Your task to perform on an android device: turn off smart reply in the gmail app Image 0: 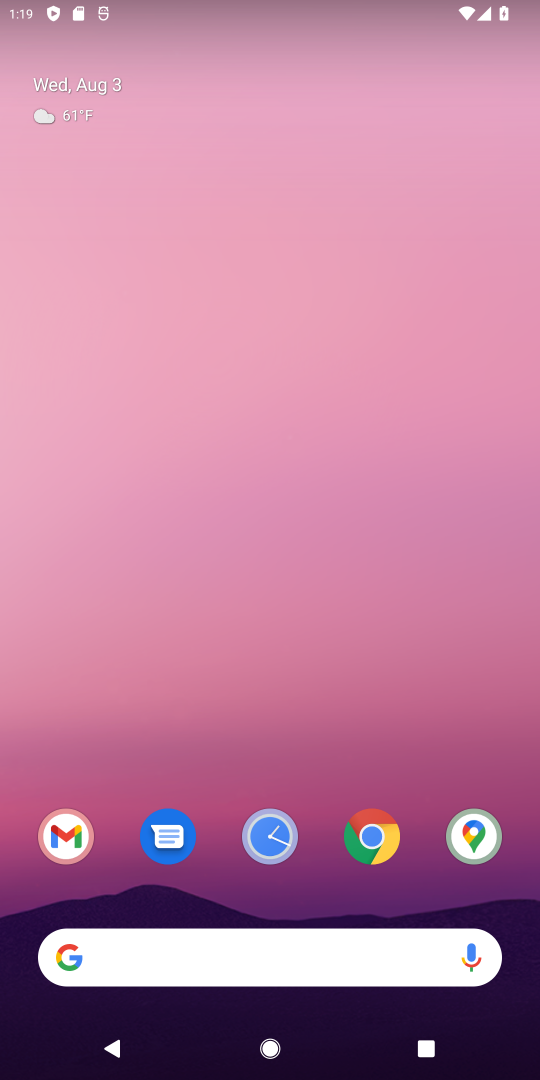
Step 0: drag from (231, 752) to (374, 95)
Your task to perform on an android device: turn off smart reply in the gmail app Image 1: 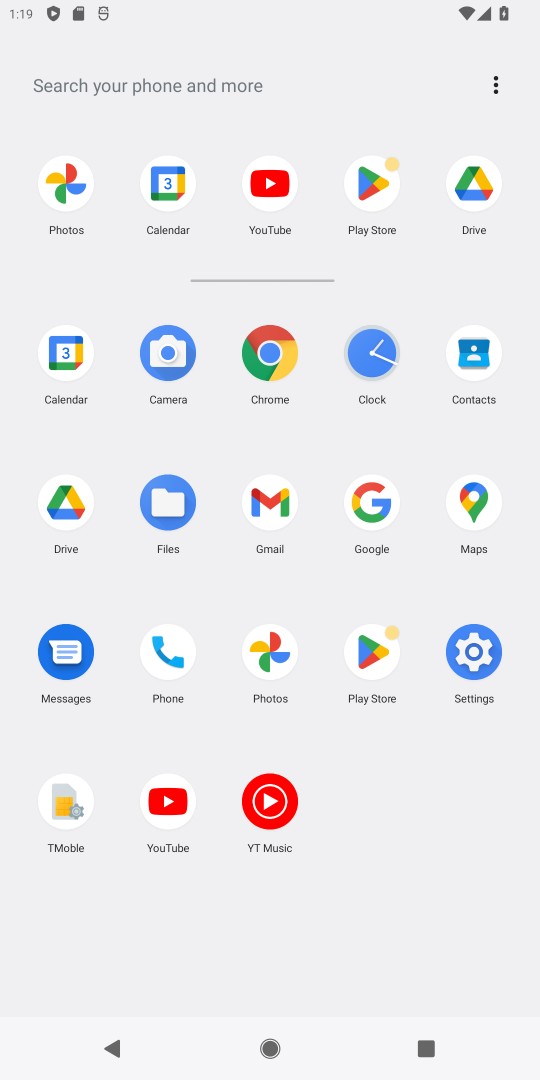
Step 1: click (272, 514)
Your task to perform on an android device: turn off smart reply in the gmail app Image 2: 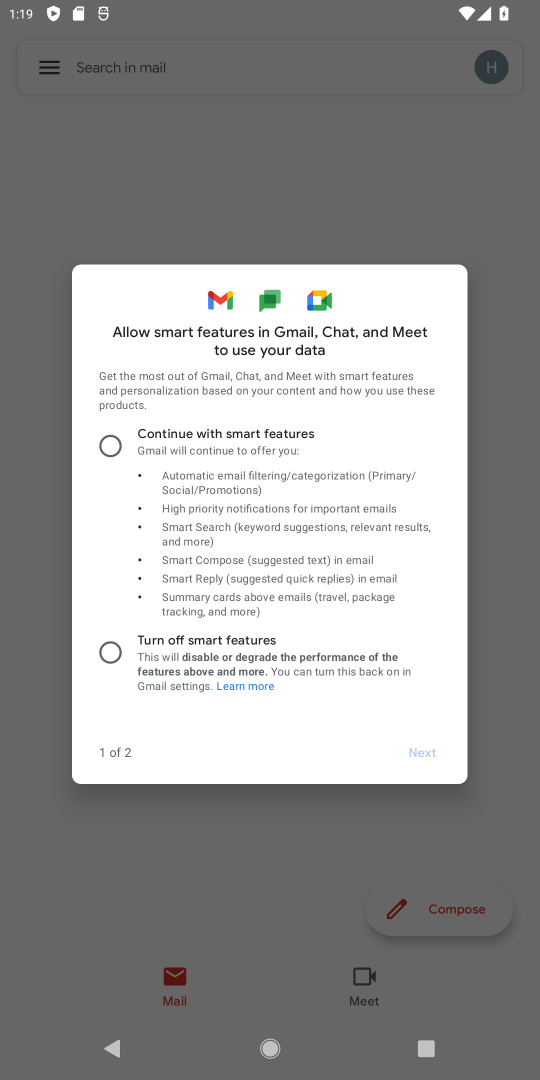
Step 2: drag from (311, 636) to (311, 289)
Your task to perform on an android device: turn off smart reply in the gmail app Image 3: 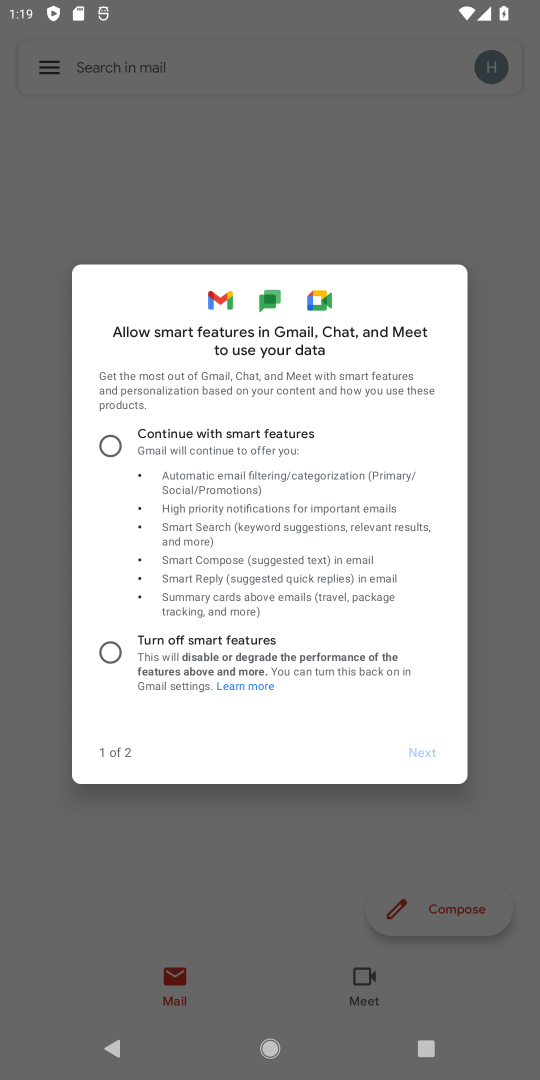
Step 3: click (456, 737)
Your task to perform on an android device: turn off smart reply in the gmail app Image 4: 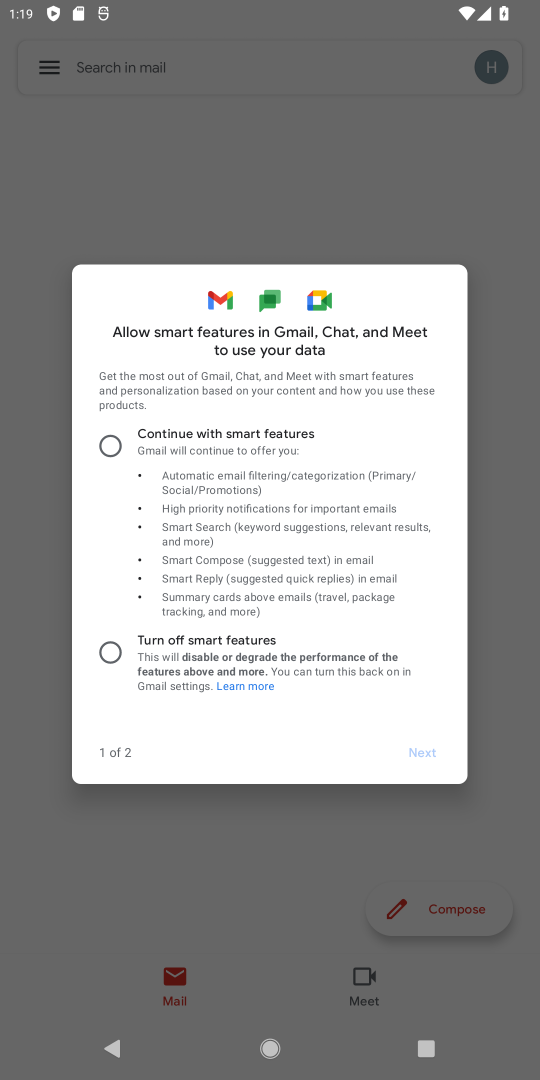
Step 4: drag from (307, 680) to (303, 328)
Your task to perform on an android device: turn off smart reply in the gmail app Image 5: 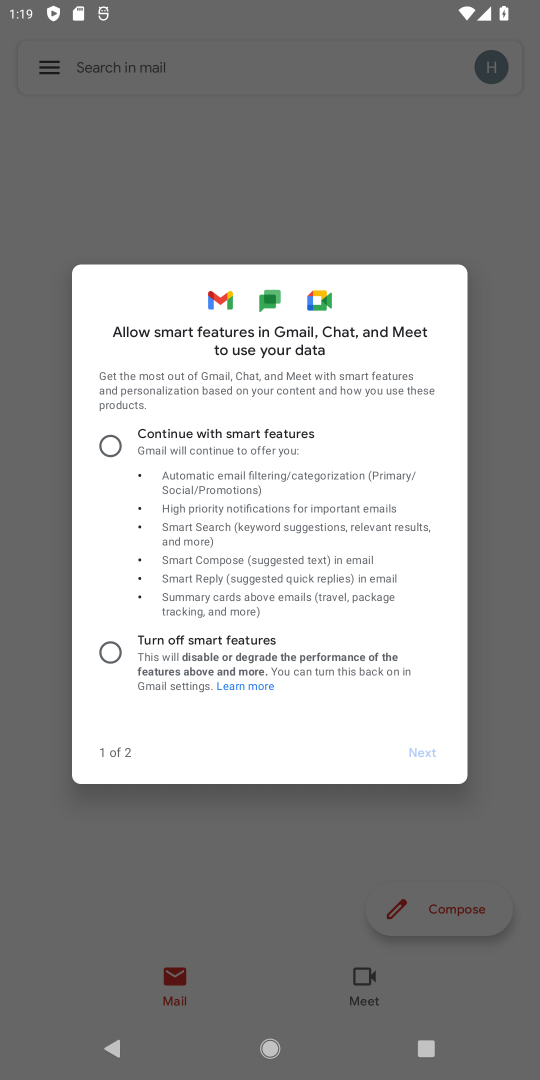
Step 5: drag from (176, 678) to (258, 471)
Your task to perform on an android device: turn off smart reply in the gmail app Image 6: 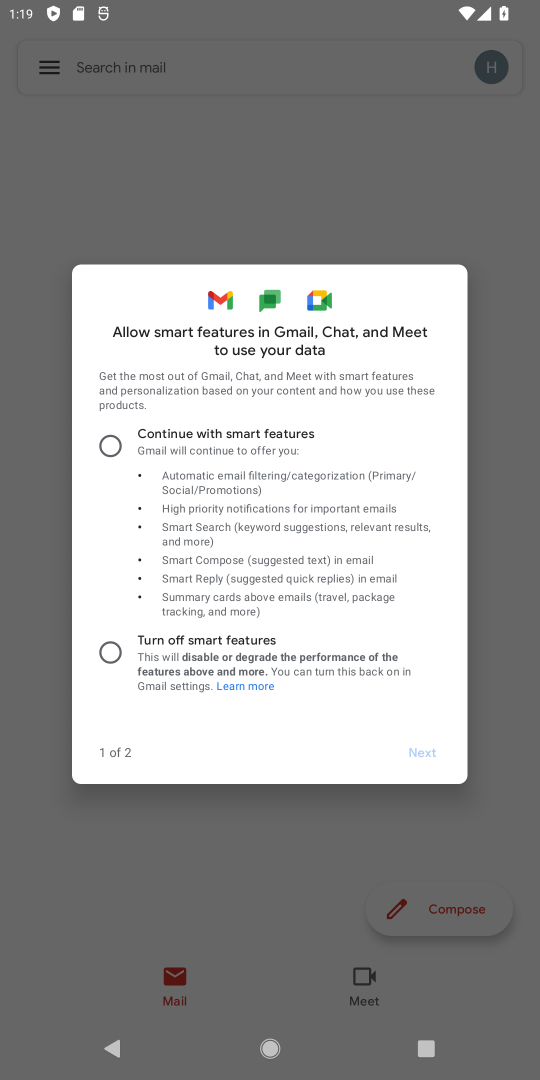
Step 6: click (145, 436)
Your task to perform on an android device: turn off smart reply in the gmail app Image 7: 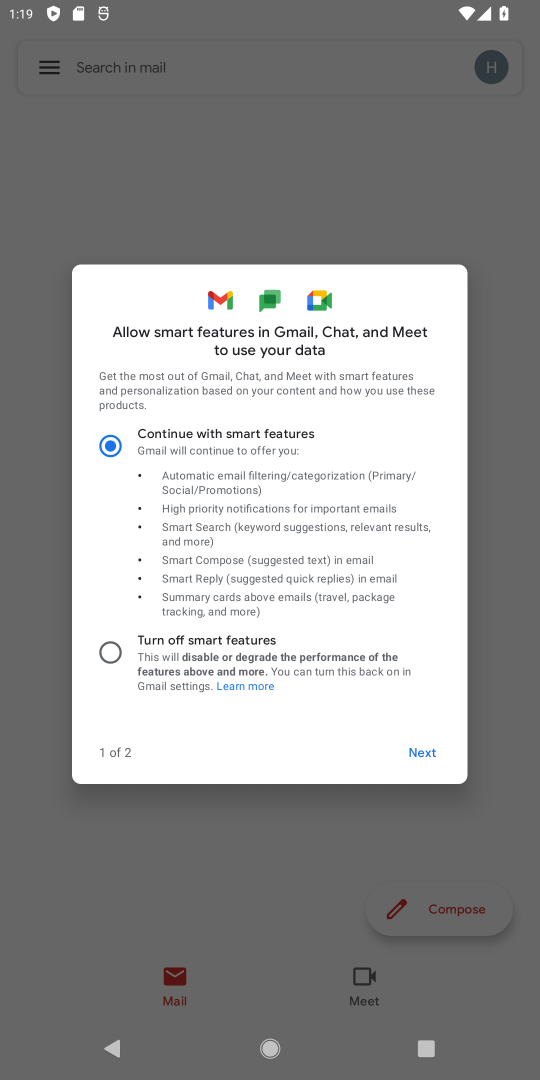
Step 7: click (425, 750)
Your task to perform on an android device: turn off smart reply in the gmail app Image 8: 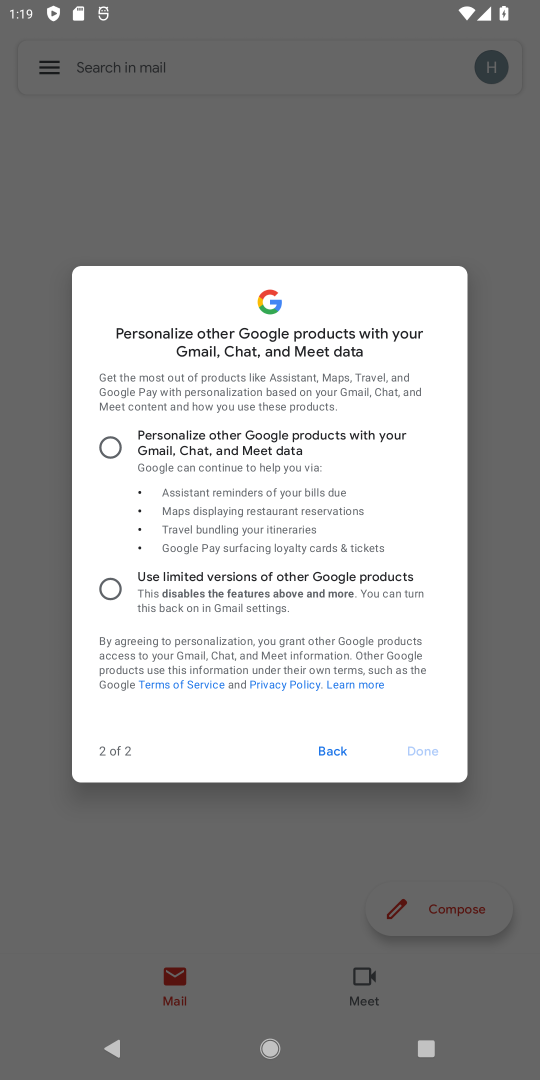
Step 8: click (331, 749)
Your task to perform on an android device: turn off smart reply in the gmail app Image 9: 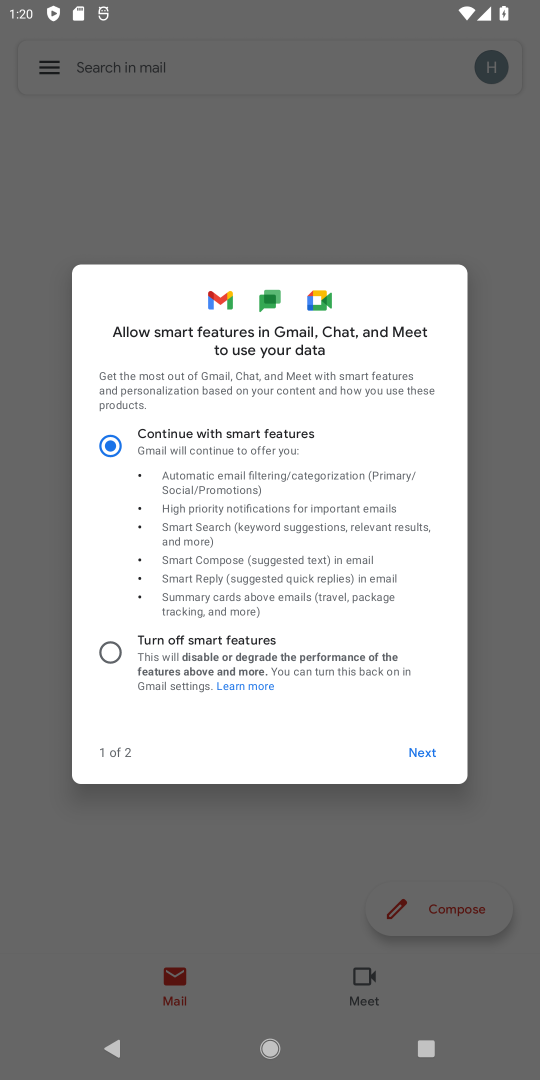
Step 9: click (405, 753)
Your task to perform on an android device: turn off smart reply in the gmail app Image 10: 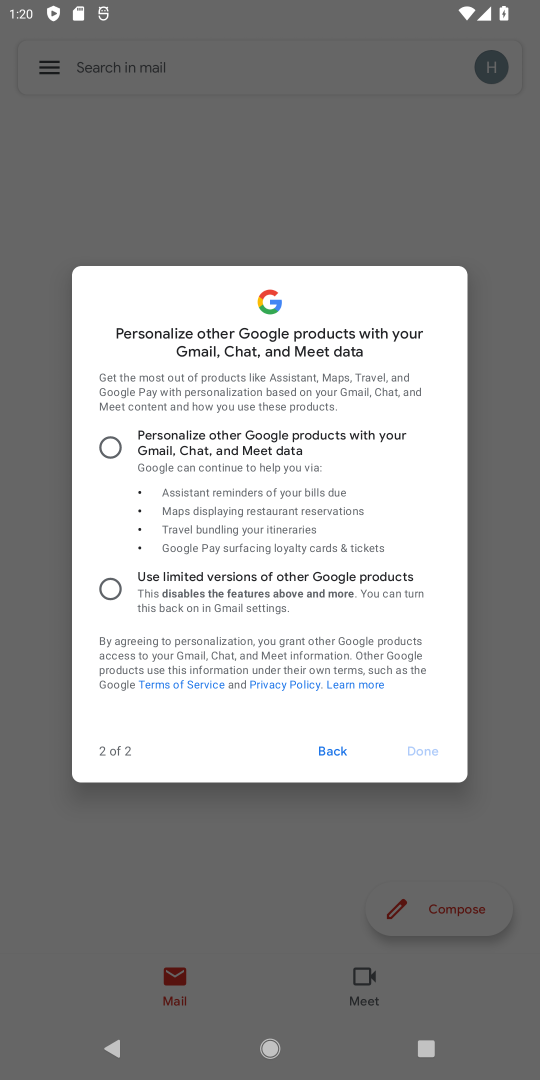
Step 10: click (127, 438)
Your task to perform on an android device: turn off smart reply in the gmail app Image 11: 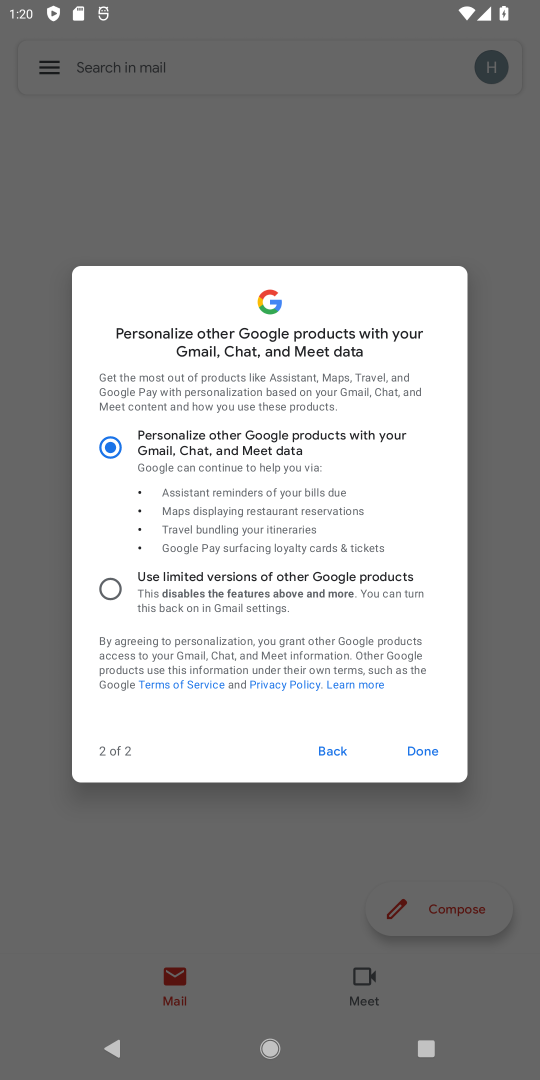
Step 11: click (423, 751)
Your task to perform on an android device: turn off smart reply in the gmail app Image 12: 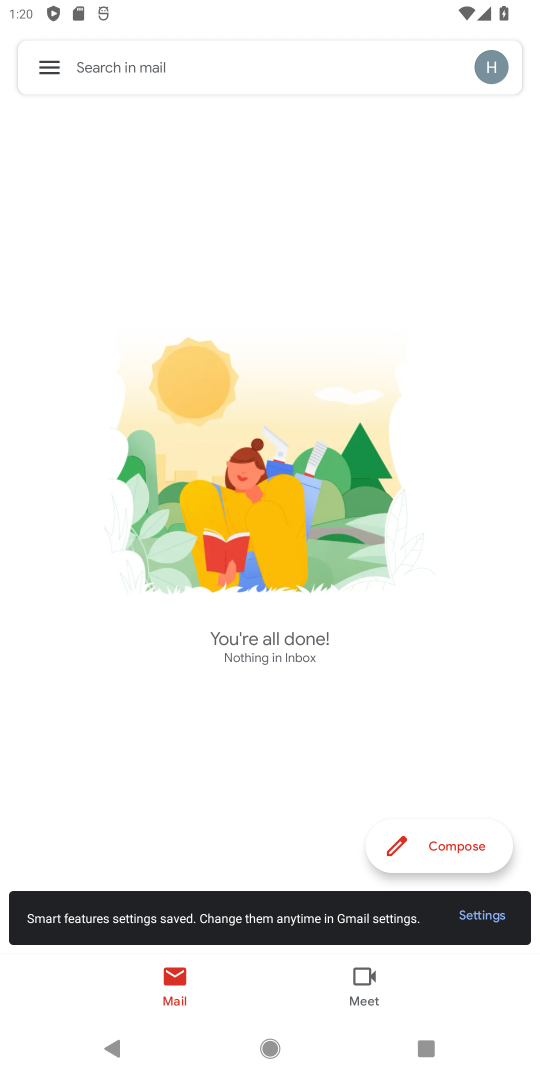
Step 12: drag from (333, 761) to (359, 512)
Your task to perform on an android device: turn off smart reply in the gmail app Image 13: 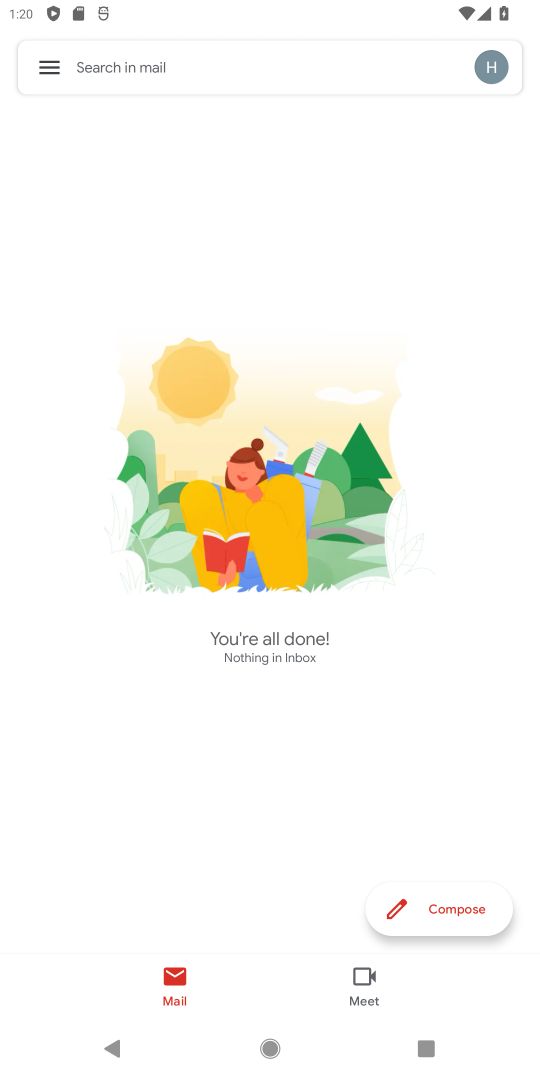
Step 13: click (55, 67)
Your task to perform on an android device: turn off smart reply in the gmail app Image 14: 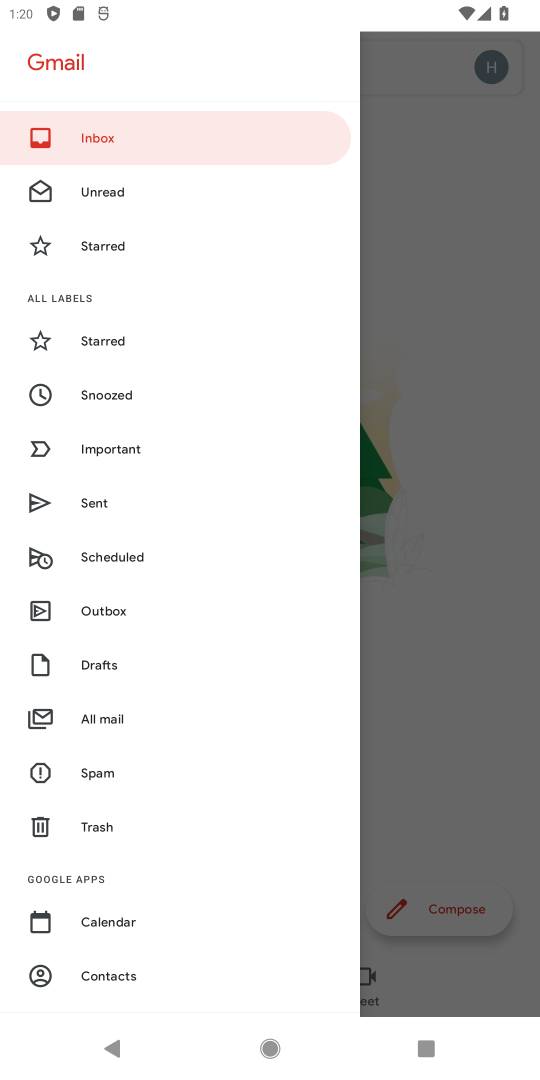
Step 14: drag from (120, 932) to (221, 392)
Your task to perform on an android device: turn off smart reply in the gmail app Image 15: 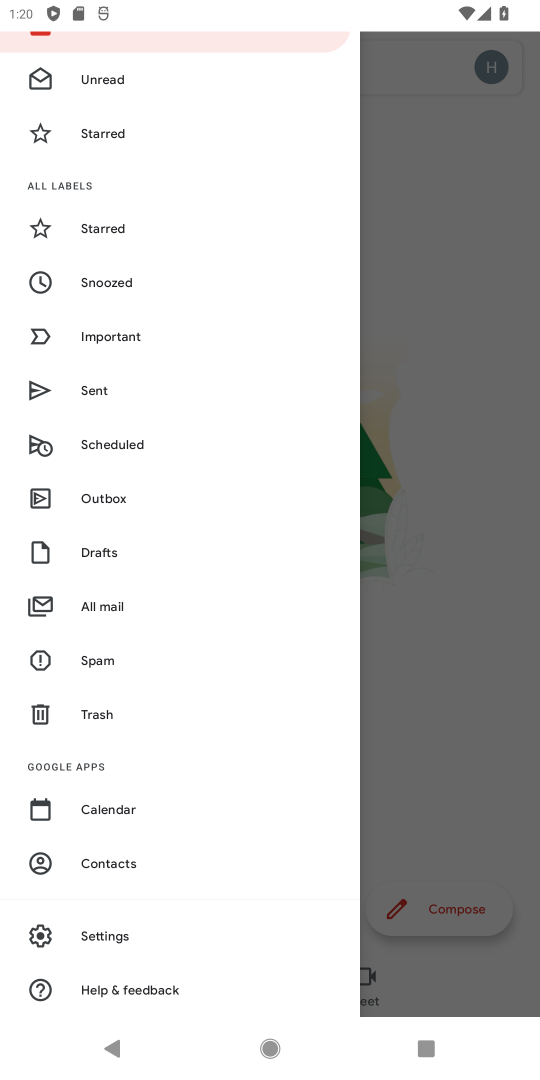
Step 15: click (63, 956)
Your task to perform on an android device: turn off smart reply in the gmail app Image 16: 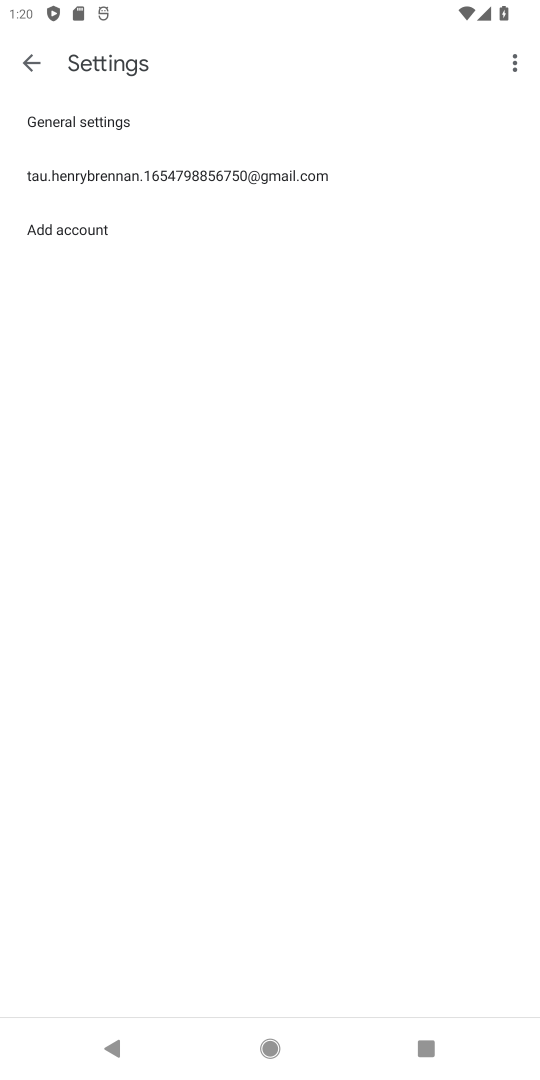
Step 16: click (136, 175)
Your task to perform on an android device: turn off smart reply in the gmail app Image 17: 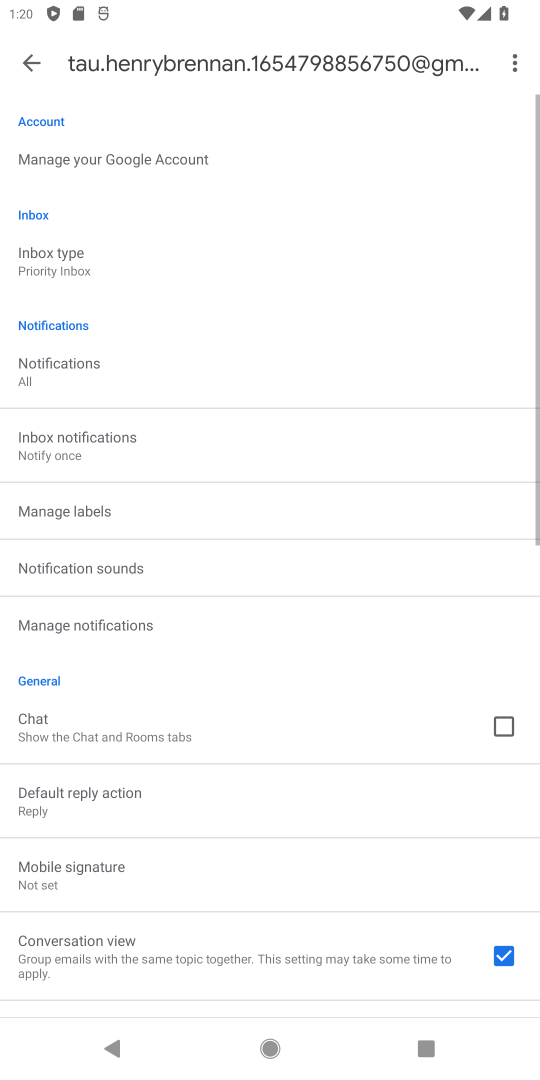
Step 17: drag from (192, 827) to (279, 332)
Your task to perform on an android device: turn off smart reply in the gmail app Image 18: 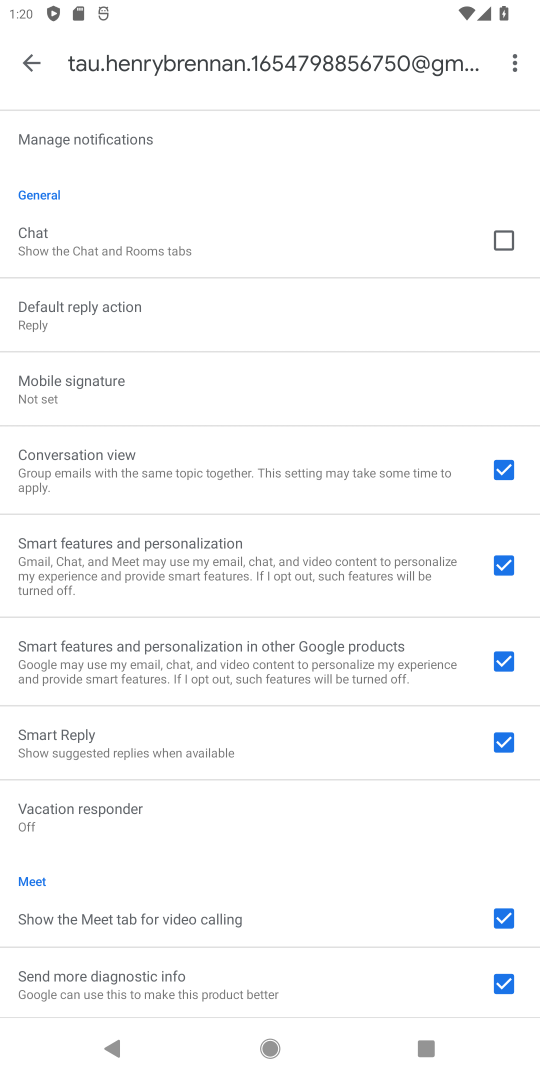
Step 18: click (507, 737)
Your task to perform on an android device: turn off smart reply in the gmail app Image 19: 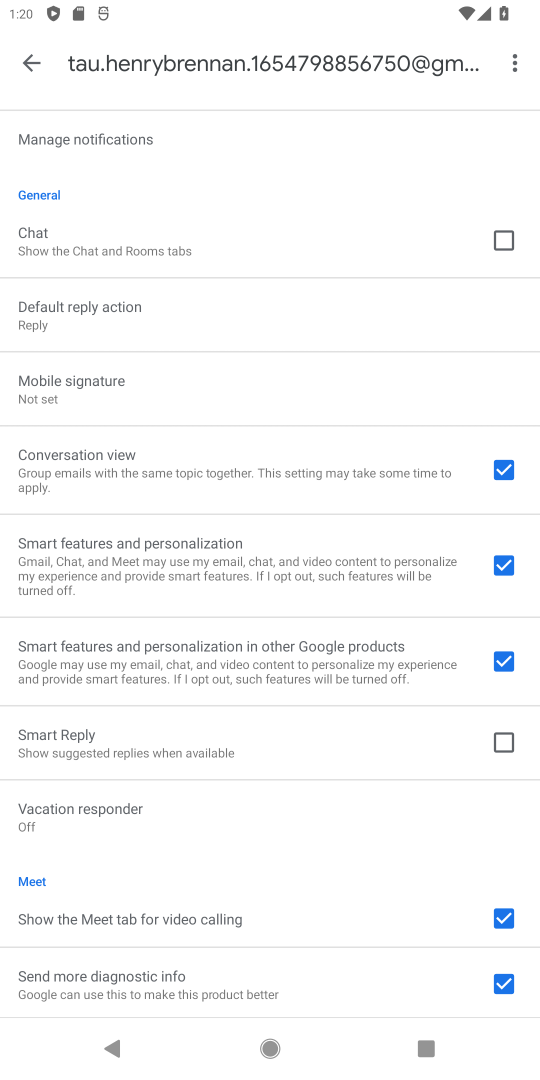
Step 19: task complete